Your task to perform on an android device: Open internet settings Image 0: 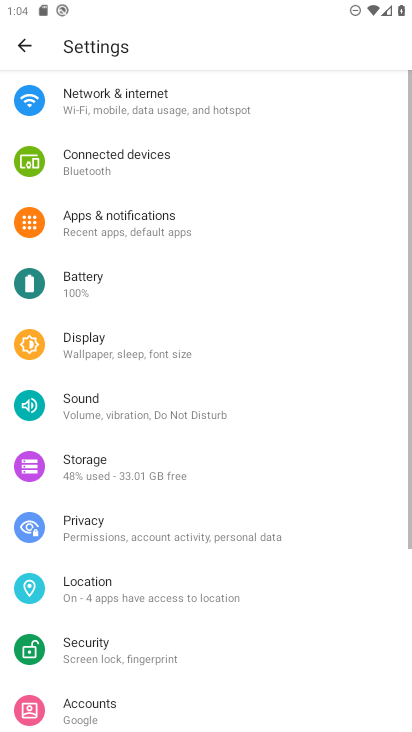
Step 0: press home button
Your task to perform on an android device: Open internet settings Image 1: 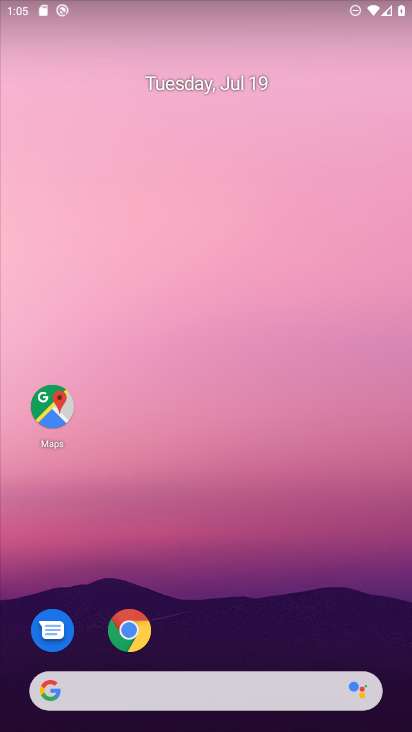
Step 1: drag from (184, 687) to (296, 59)
Your task to perform on an android device: Open internet settings Image 2: 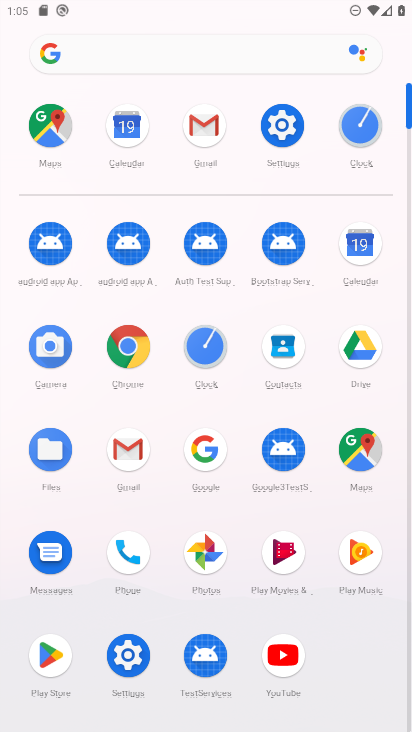
Step 2: click (290, 133)
Your task to perform on an android device: Open internet settings Image 3: 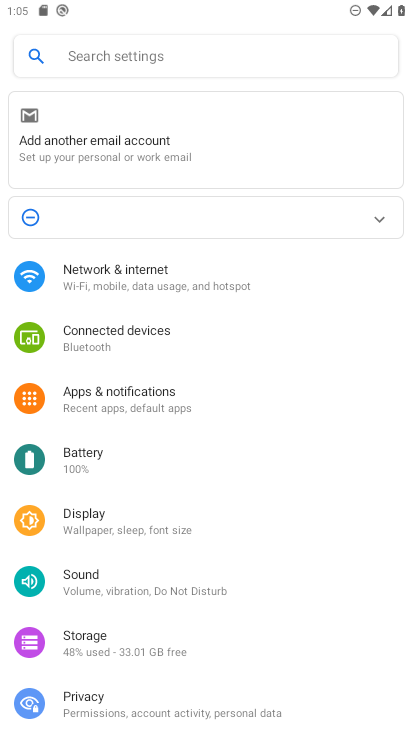
Step 3: click (139, 270)
Your task to perform on an android device: Open internet settings Image 4: 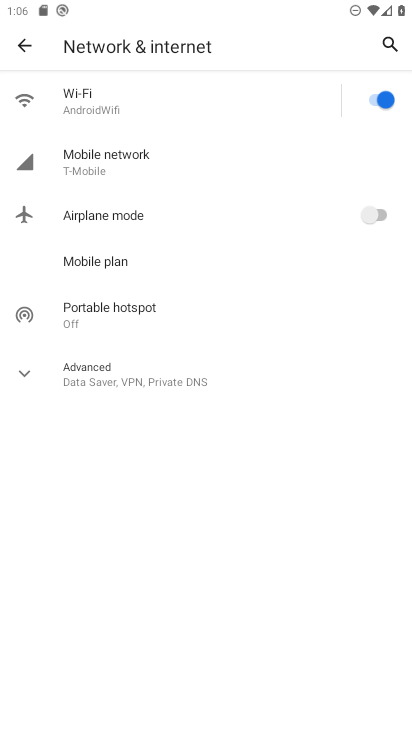
Step 4: task complete